Your task to perform on an android device: set the timer Image 0: 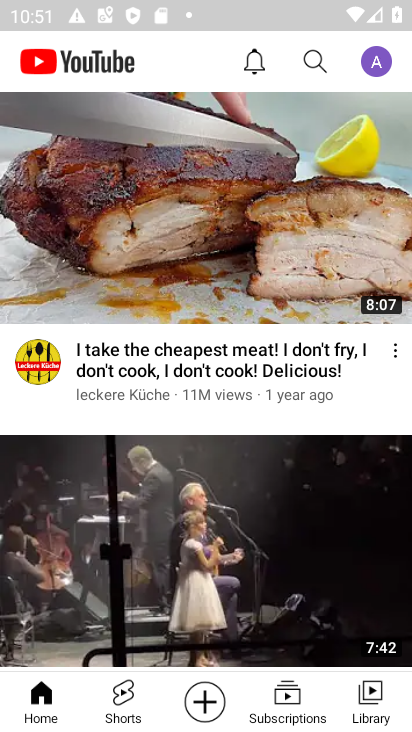
Step 0: press home button
Your task to perform on an android device: set the timer Image 1: 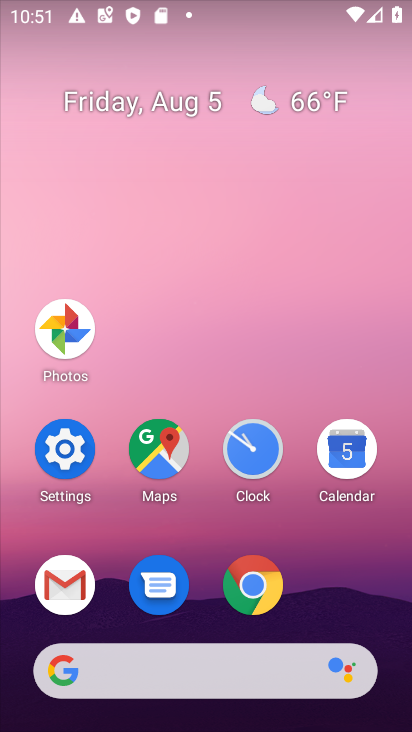
Step 1: click (314, 353)
Your task to perform on an android device: set the timer Image 2: 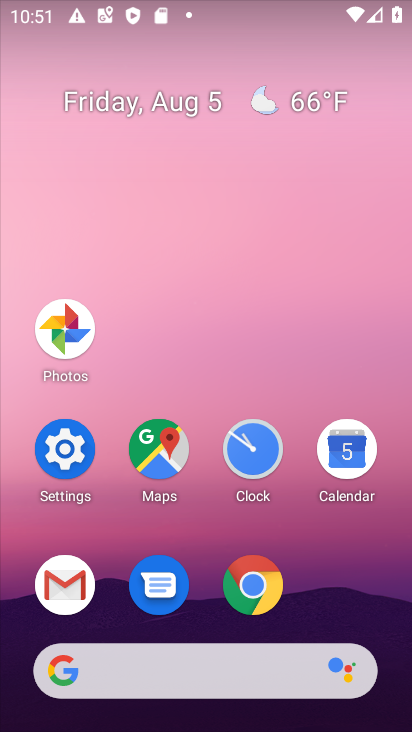
Step 2: click (259, 451)
Your task to perform on an android device: set the timer Image 3: 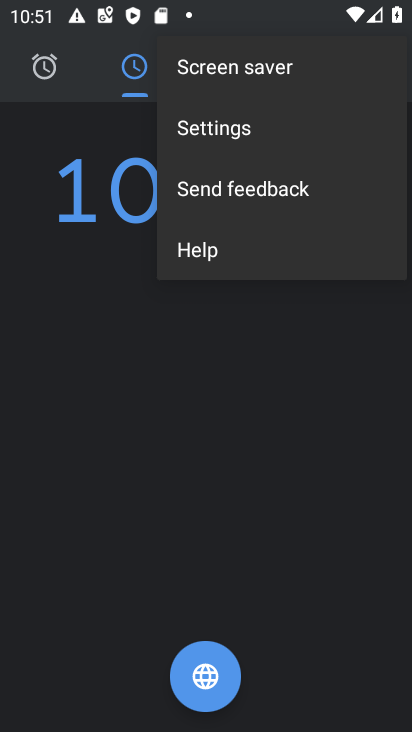
Step 3: click (226, 341)
Your task to perform on an android device: set the timer Image 4: 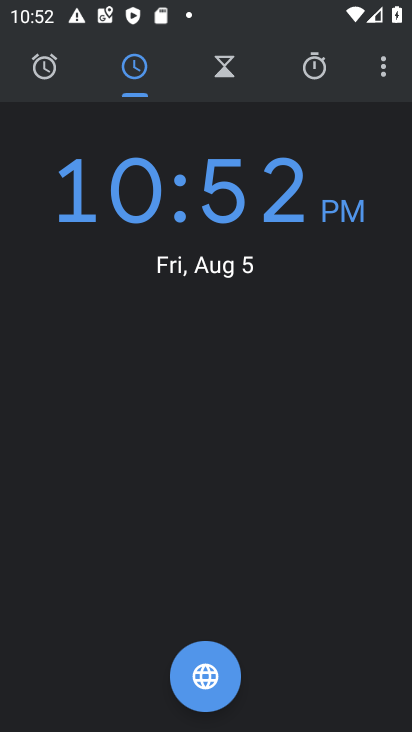
Step 4: click (226, 341)
Your task to perform on an android device: set the timer Image 5: 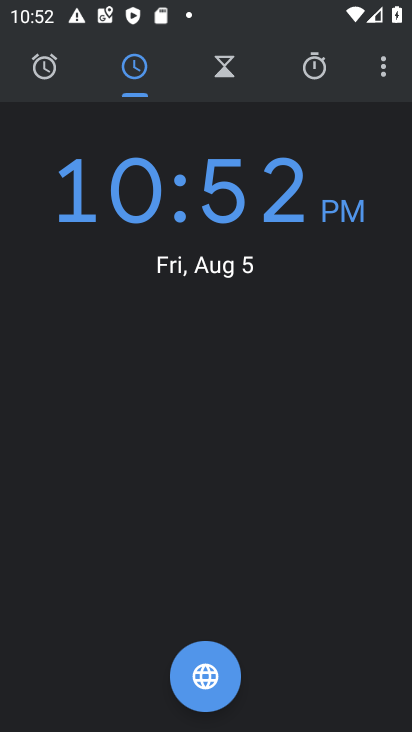
Step 5: click (232, 68)
Your task to perform on an android device: set the timer Image 6: 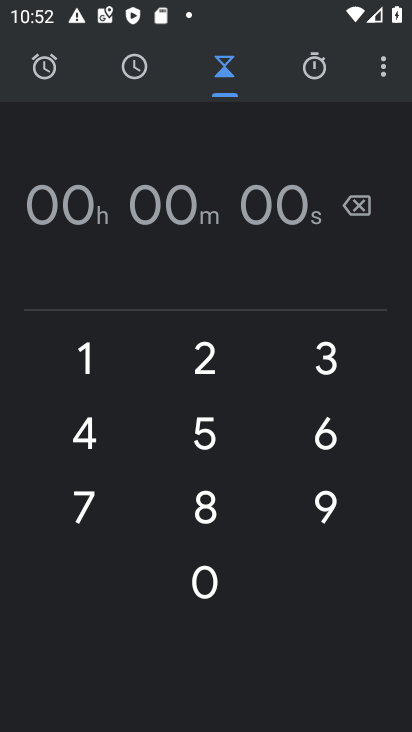
Step 6: click (89, 351)
Your task to perform on an android device: set the timer Image 7: 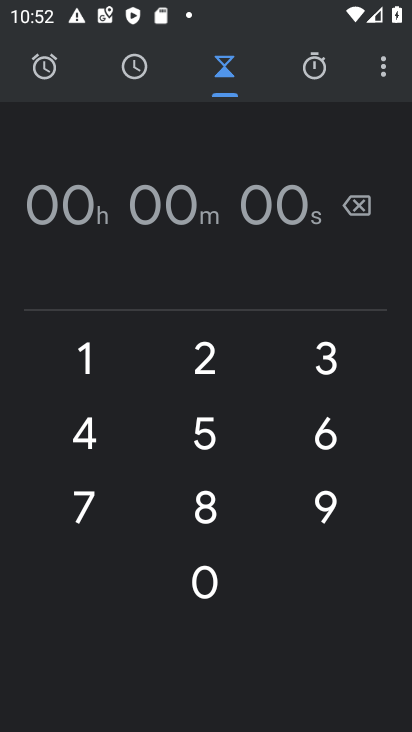
Step 7: click (89, 351)
Your task to perform on an android device: set the timer Image 8: 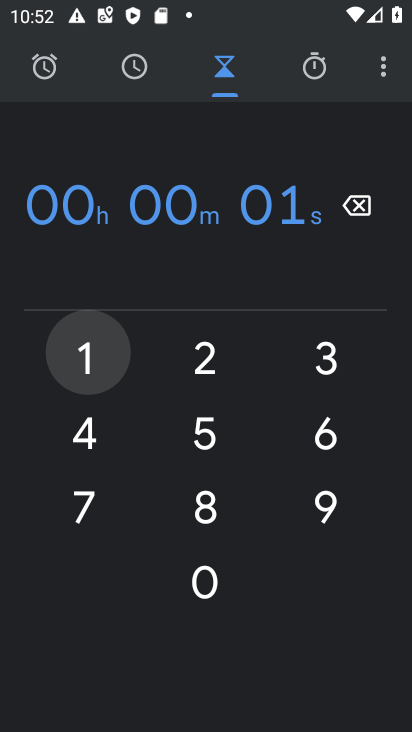
Step 8: click (89, 351)
Your task to perform on an android device: set the timer Image 9: 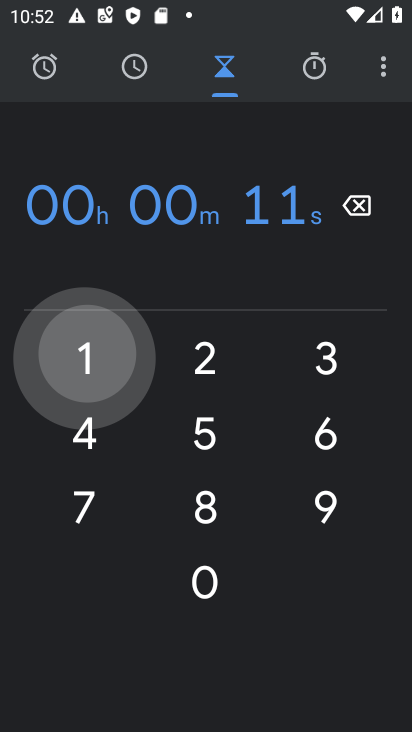
Step 9: click (89, 351)
Your task to perform on an android device: set the timer Image 10: 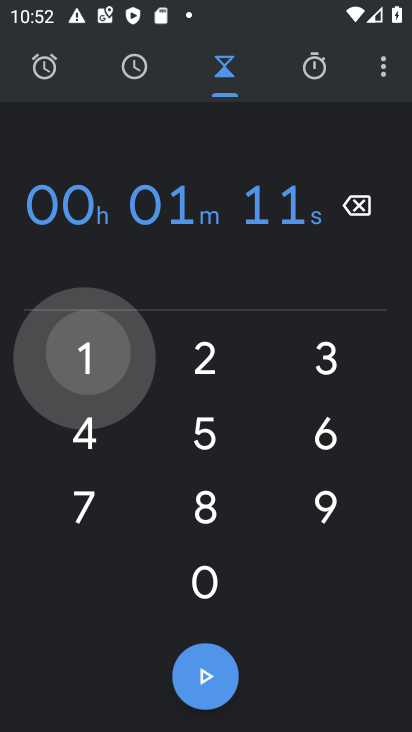
Step 10: click (89, 351)
Your task to perform on an android device: set the timer Image 11: 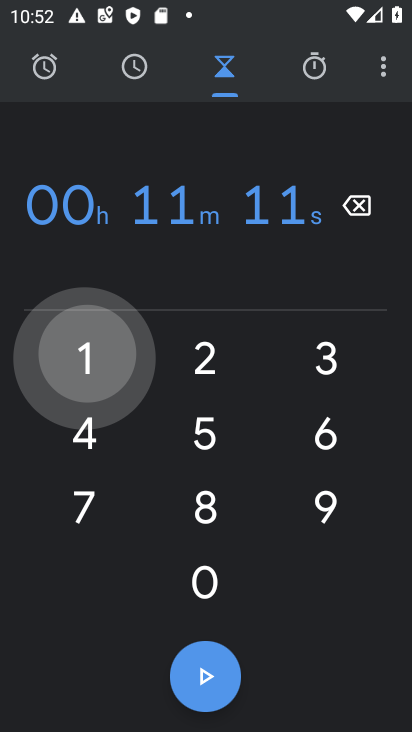
Step 11: click (89, 351)
Your task to perform on an android device: set the timer Image 12: 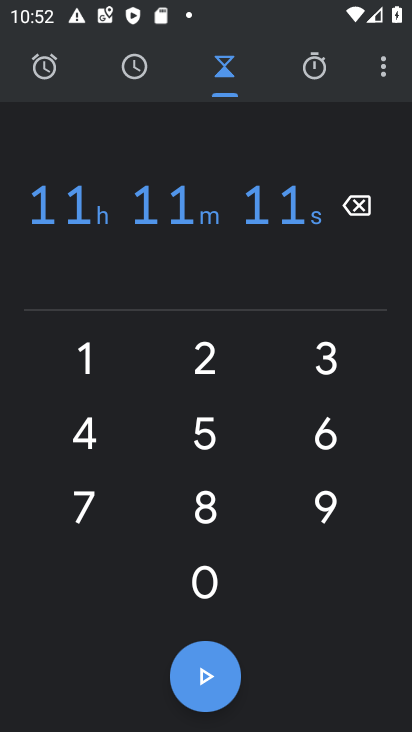
Step 12: task complete